Your task to perform on an android device: Open Amazon Image 0: 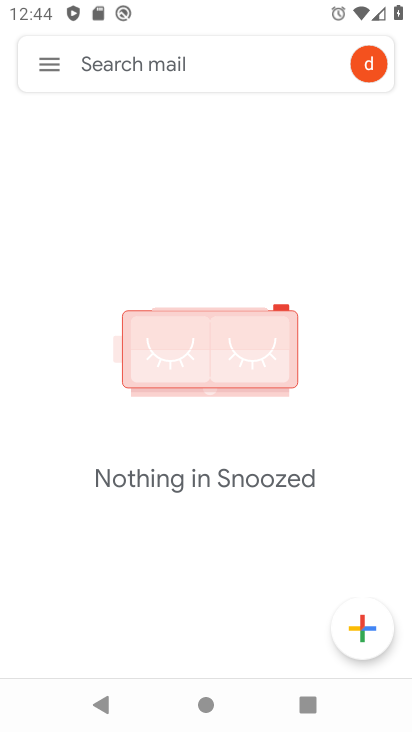
Step 0: drag from (299, 572) to (343, 213)
Your task to perform on an android device: Open Amazon Image 1: 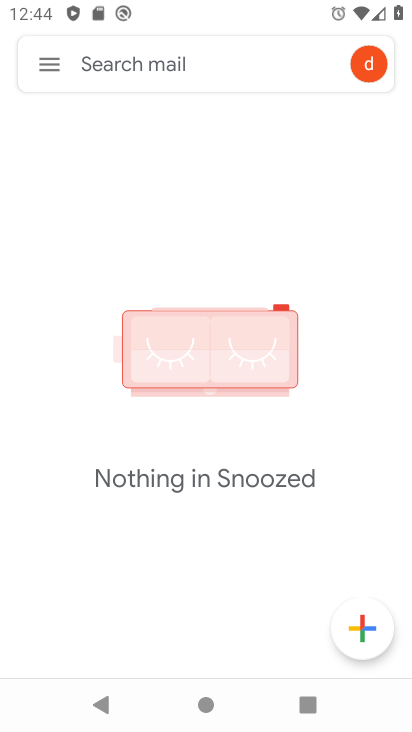
Step 1: press home button
Your task to perform on an android device: Open Amazon Image 2: 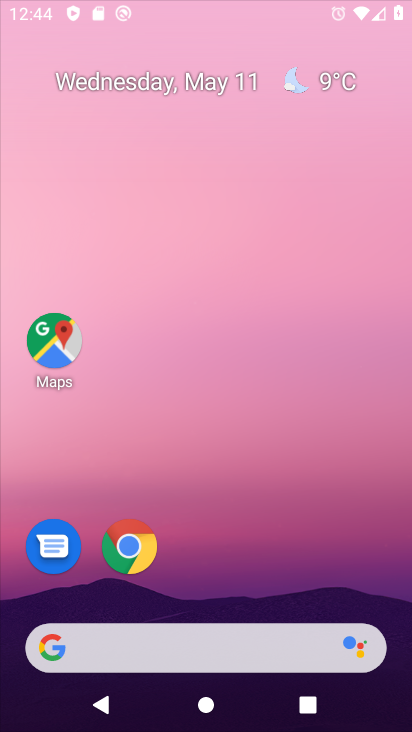
Step 2: drag from (212, 573) to (263, 203)
Your task to perform on an android device: Open Amazon Image 3: 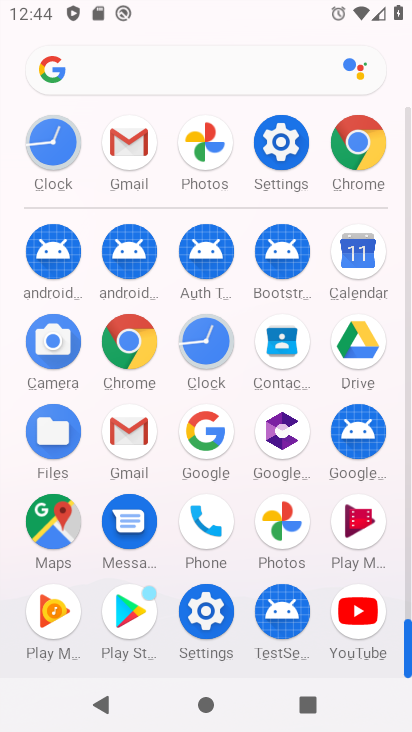
Step 3: click (206, 73)
Your task to perform on an android device: Open Amazon Image 4: 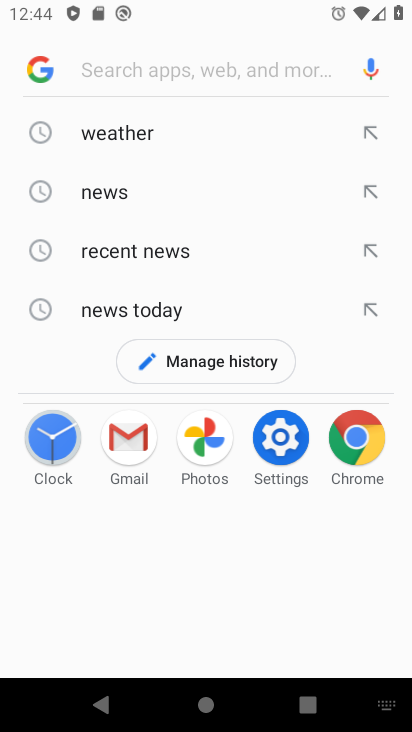
Step 4: type "amazon"
Your task to perform on an android device: Open Amazon Image 5: 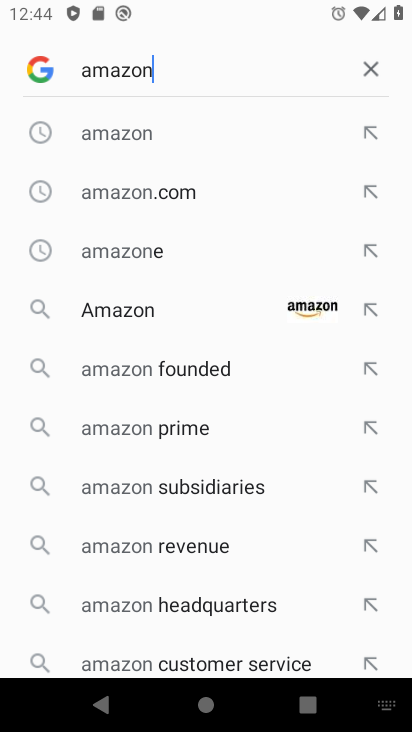
Step 5: click (107, 149)
Your task to perform on an android device: Open Amazon Image 6: 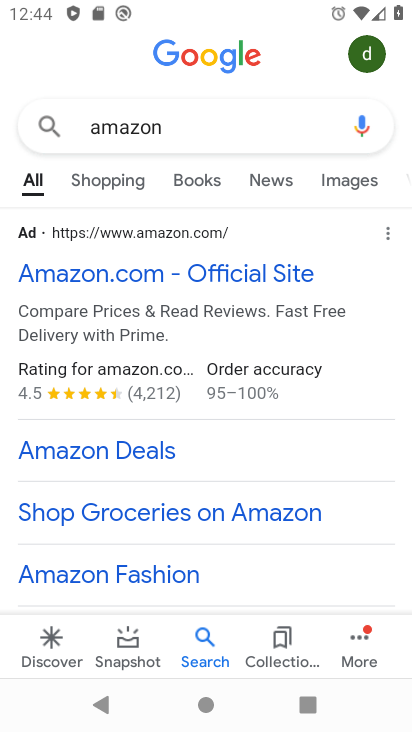
Step 6: click (166, 278)
Your task to perform on an android device: Open Amazon Image 7: 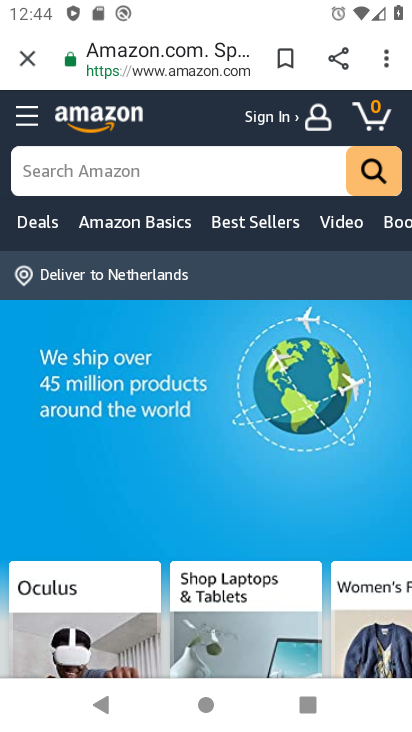
Step 7: task complete